Your task to perform on an android device: allow notifications from all sites in the chrome app Image 0: 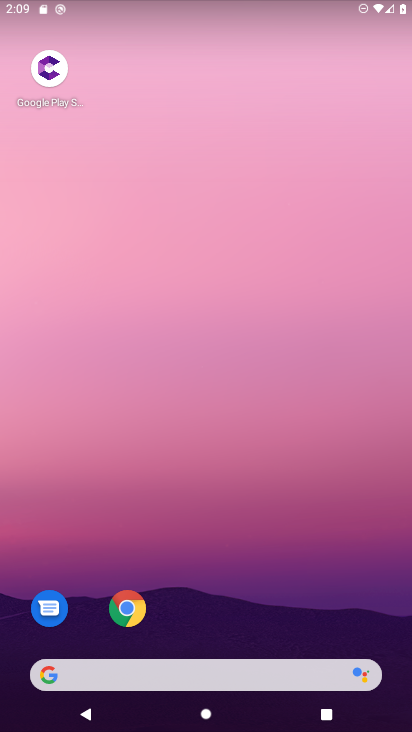
Step 0: click (127, 606)
Your task to perform on an android device: allow notifications from all sites in the chrome app Image 1: 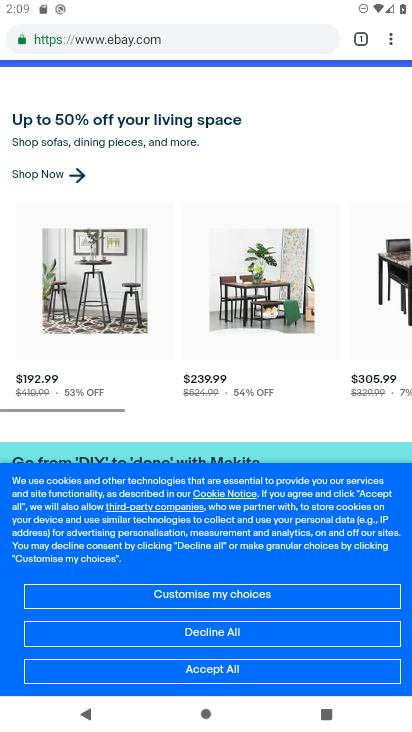
Step 1: click (388, 42)
Your task to perform on an android device: allow notifications from all sites in the chrome app Image 2: 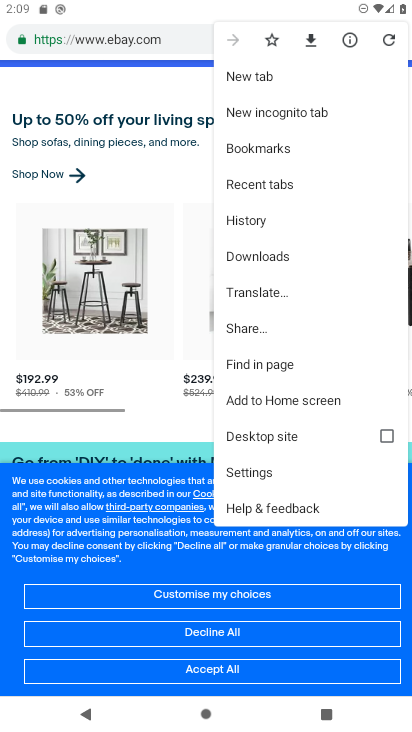
Step 2: click (259, 463)
Your task to perform on an android device: allow notifications from all sites in the chrome app Image 3: 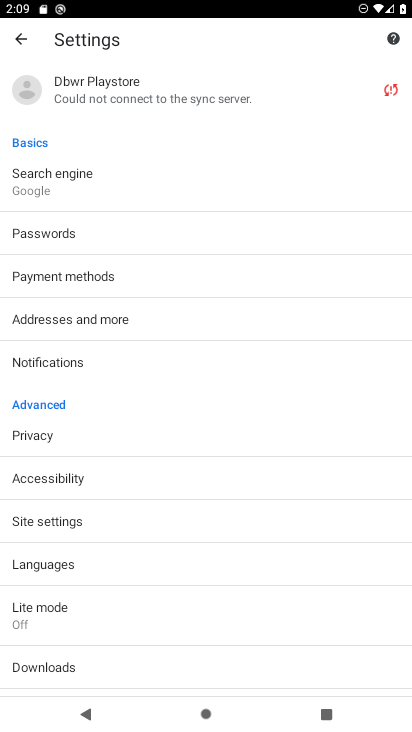
Step 3: click (45, 516)
Your task to perform on an android device: allow notifications from all sites in the chrome app Image 4: 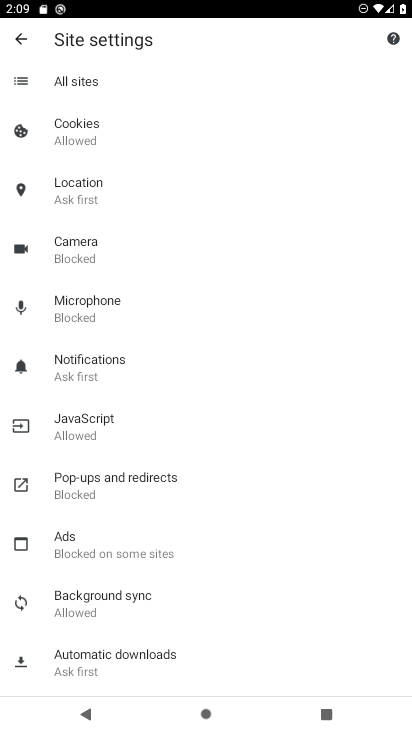
Step 4: click (89, 360)
Your task to perform on an android device: allow notifications from all sites in the chrome app Image 5: 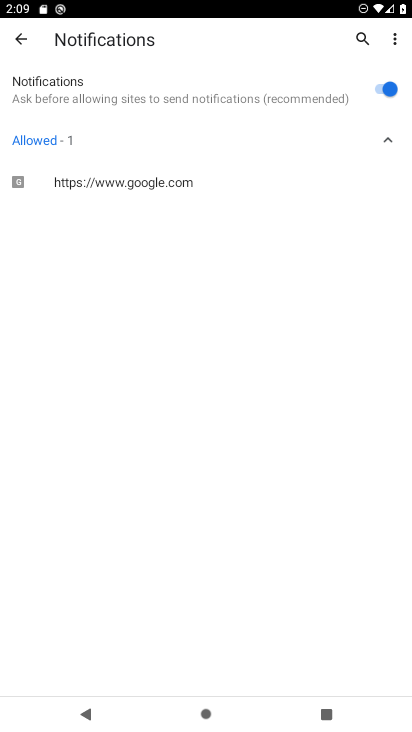
Step 5: task complete